Your task to perform on an android device: Do I have any events today? Image 0: 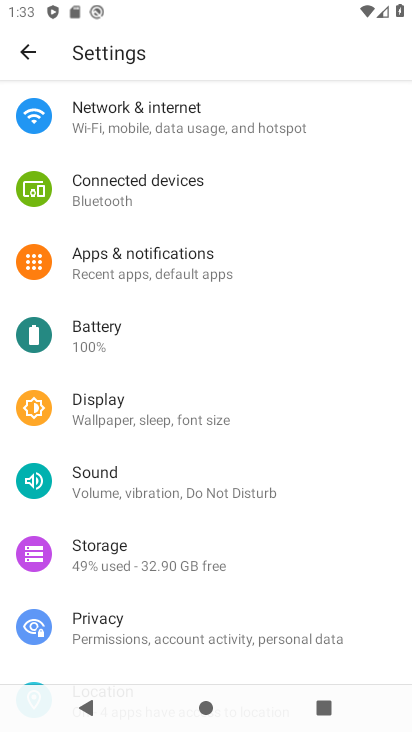
Step 0: press home button
Your task to perform on an android device: Do I have any events today? Image 1: 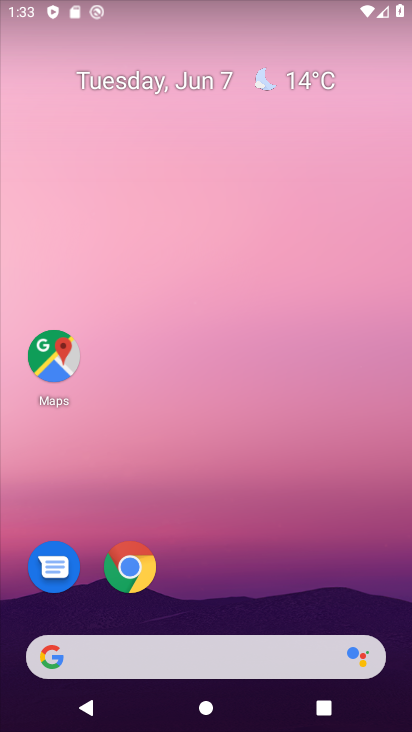
Step 1: drag from (358, 526) to (411, 128)
Your task to perform on an android device: Do I have any events today? Image 2: 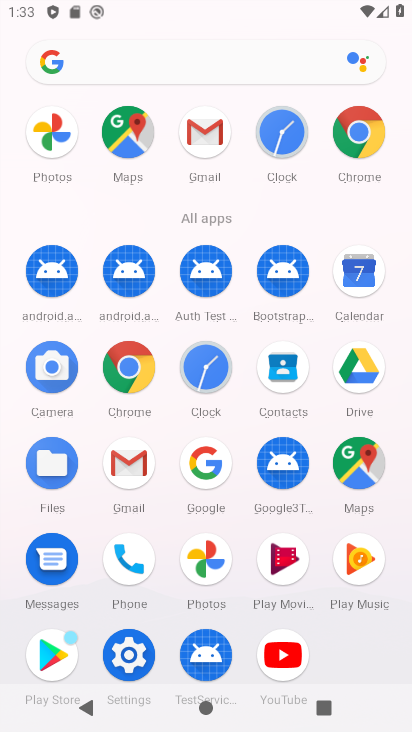
Step 2: click (371, 279)
Your task to perform on an android device: Do I have any events today? Image 3: 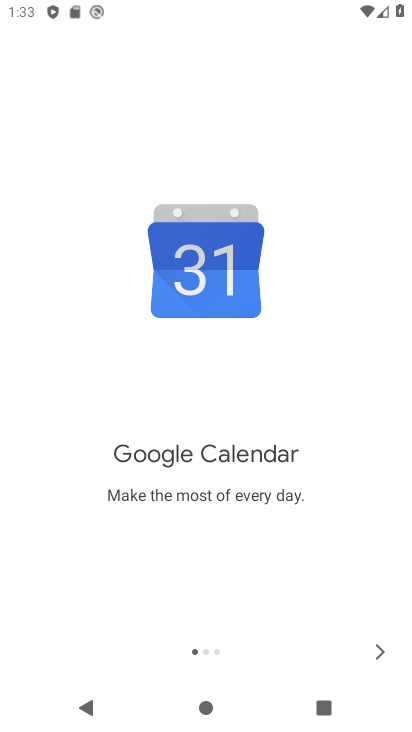
Step 3: click (385, 654)
Your task to perform on an android device: Do I have any events today? Image 4: 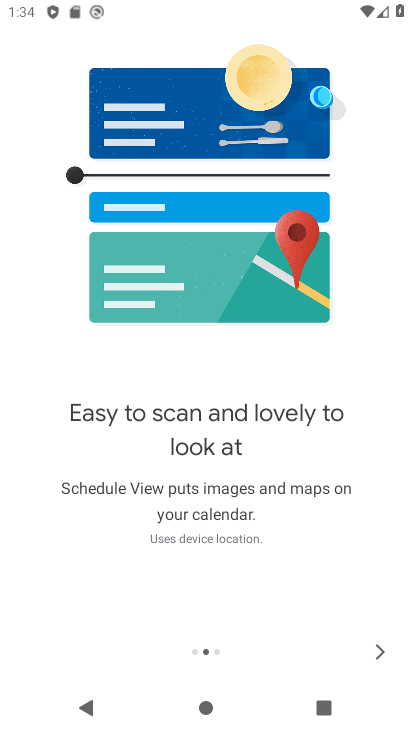
Step 4: click (389, 646)
Your task to perform on an android device: Do I have any events today? Image 5: 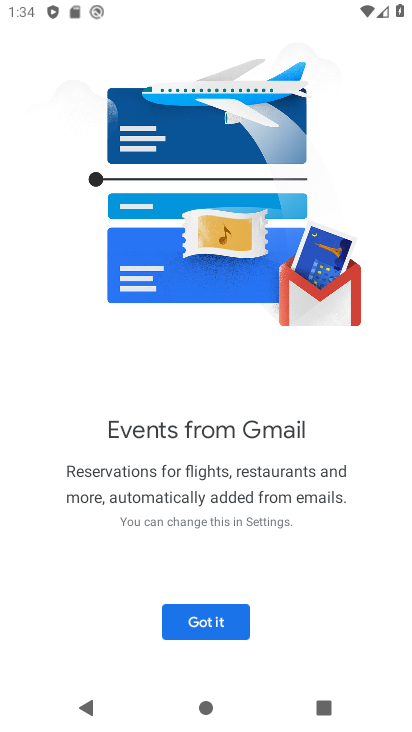
Step 5: click (220, 632)
Your task to perform on an android device: Do I have any events today? Image 6: 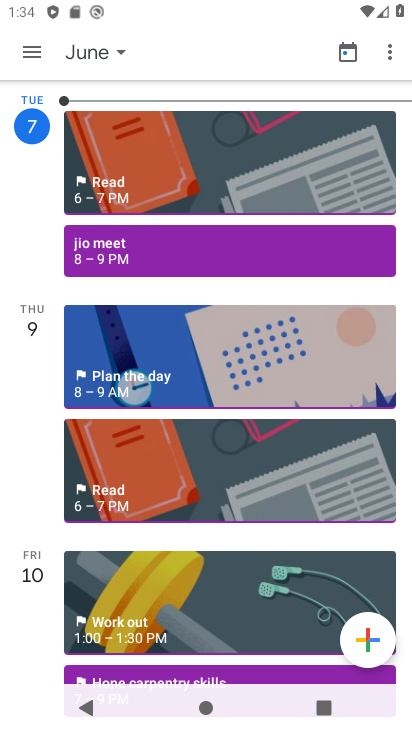
Step 6: click (118, 44)
Your task to perform on an android device: Do I have any events today? Image 7: 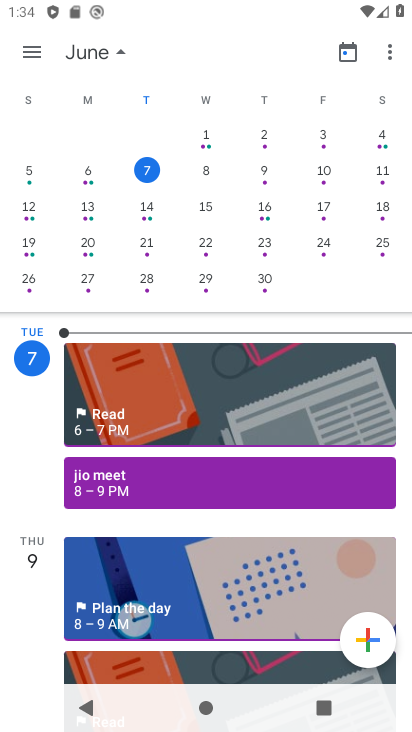
Step 7: task complete